Your task to perform on an android device: all mails in gmail Image 0: 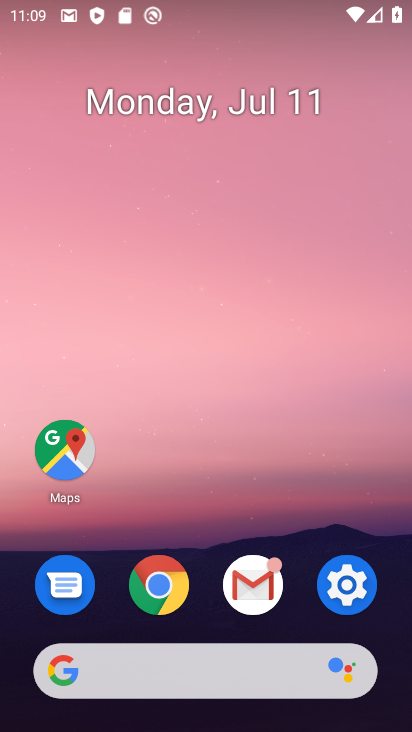
Step 0: click (249, 588)
Your task to perform on an android device: all mails in gmail Image 1: 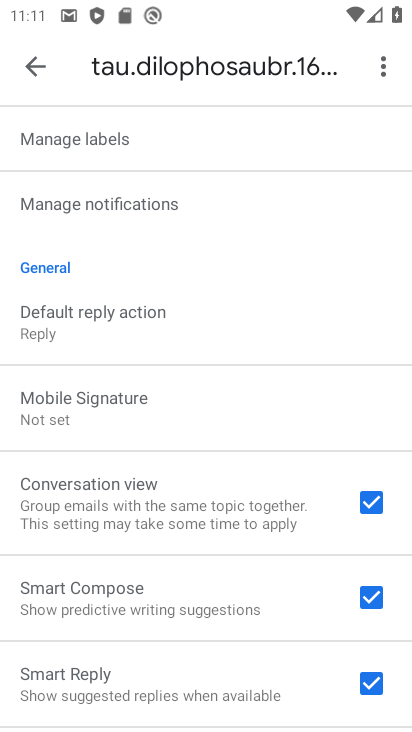
Step 1: click (42, 75)
Your task to perform on an android device: all mails in gmail Image 2: 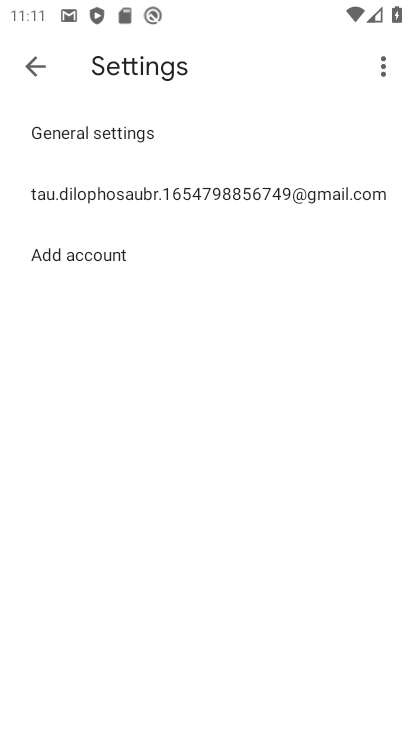
Step 2: click (34, 64)
Your task to perform on an android device: all mails in gmail Image 3: 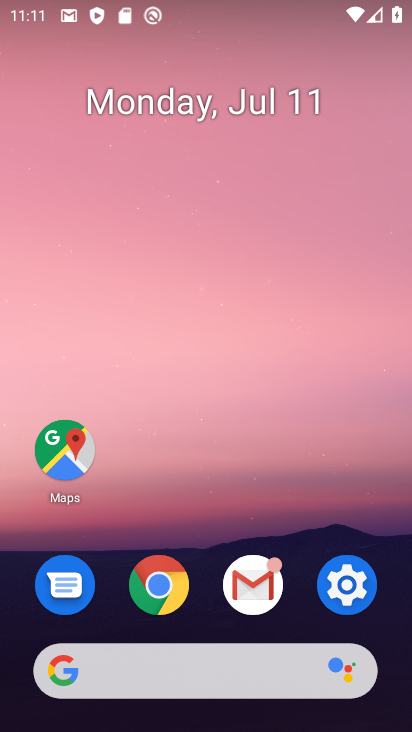
Step 3: click (266, 578)
Your task to perform on an android device: all mails in gmail Image 4: 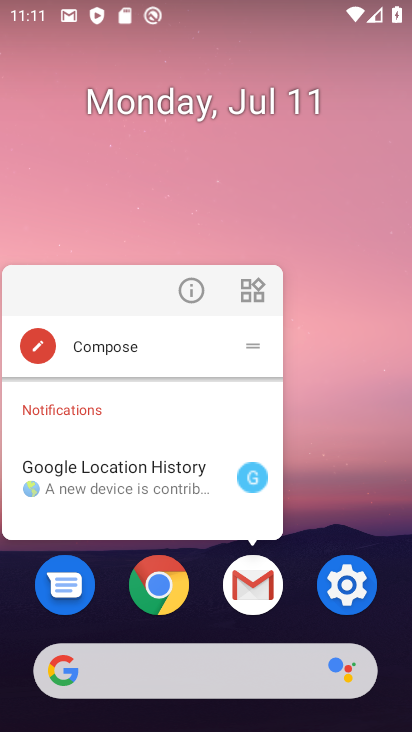
Step 4: click (247, 582)
Your task to perform on an android device: all mails in gmail Image 5: 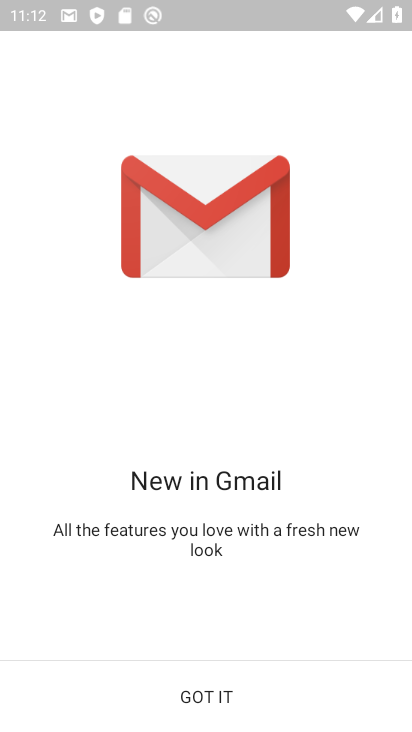
Step 5: click (202, 712)
Your task to perform on an android device: all mails in gmail Image 6: 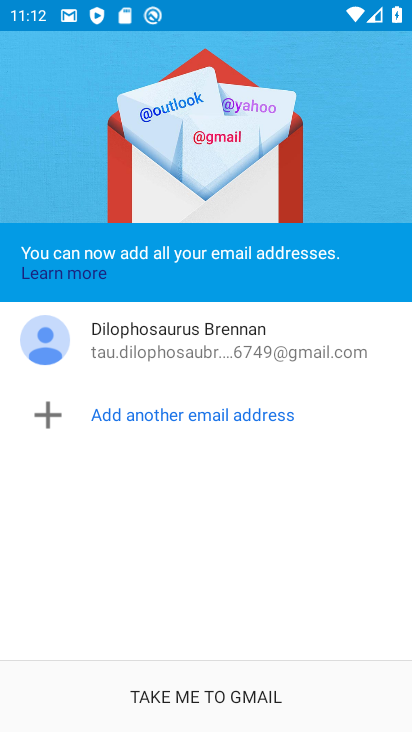
Step 6: click (185, 705)
Your task to perform on an android device: all mails in gmail Image 7: 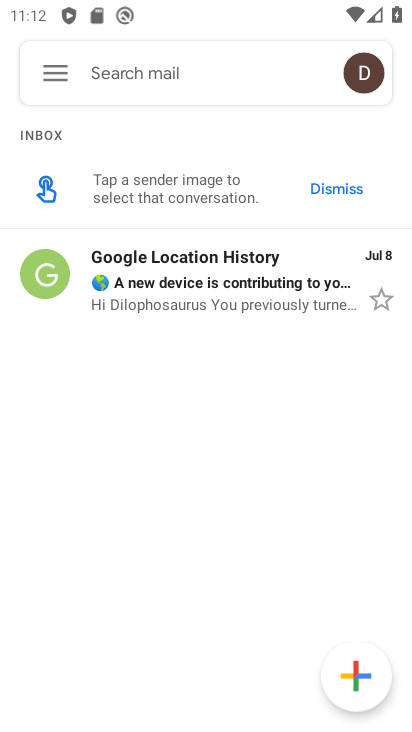
Step 7: click (322, 187)
Your task to perform on an android device: all mails in gmail Image 8: 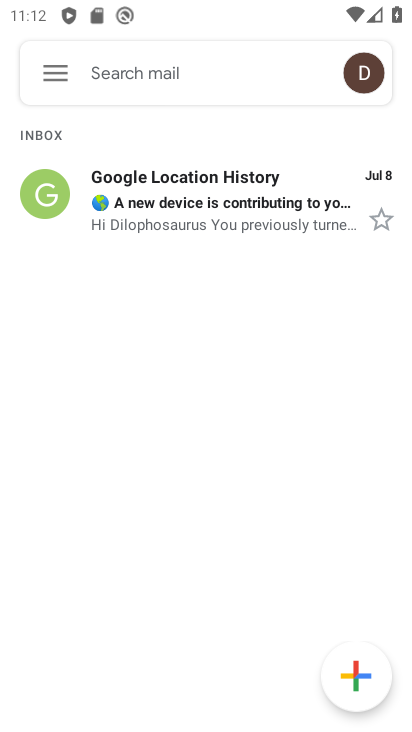
Step 8: click (55, 70)
Your task to perform on an android device: all mails in gmail Image 9: 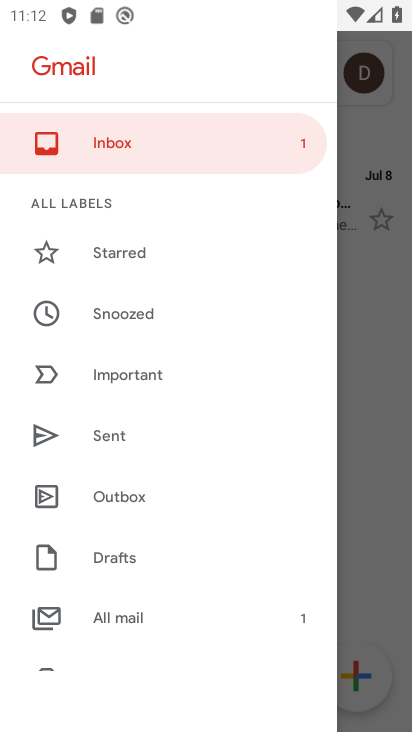
Step 9: click (123, 618)
Your task to perform on an android device: all mails in gmail Image 10: 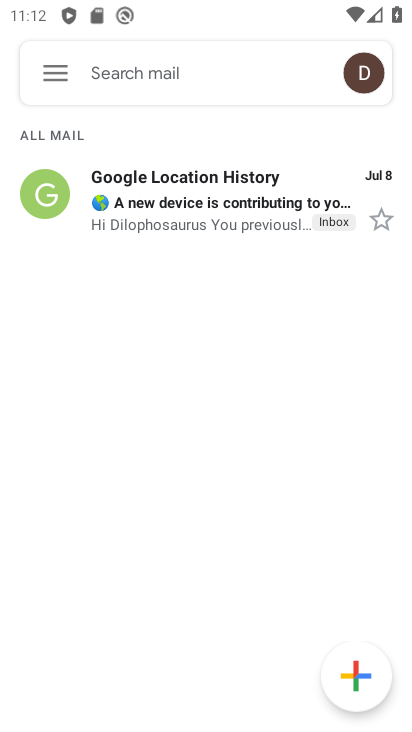
Step 10: task complete